Your task to perform on an android device: open wifi settings Image 0: 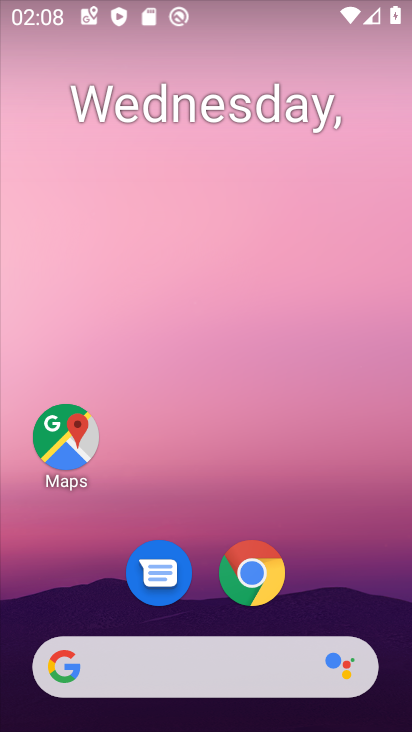
Step 0: drag from (339, 528) to (334, 135)
Your task to perform on an android device: open wifi settings Image 1: 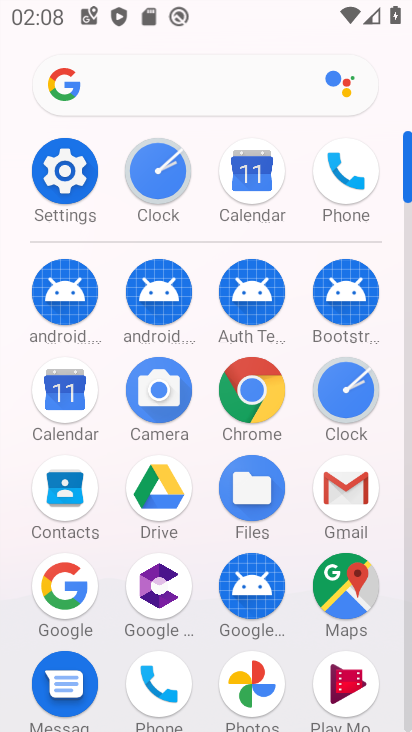
Step 1: click (54, 184)
Your task to perform on an android device: open wifi settings Image 2: 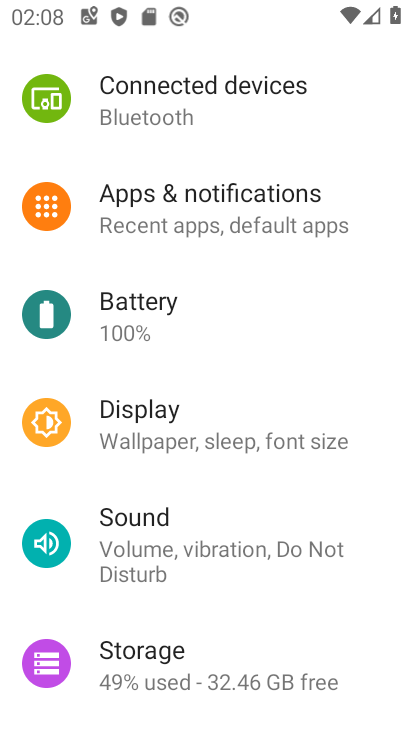
Step 2: drag from (162, 166) to (181, 432)
Your task to perform on an android device: open wifi settings Image 3: 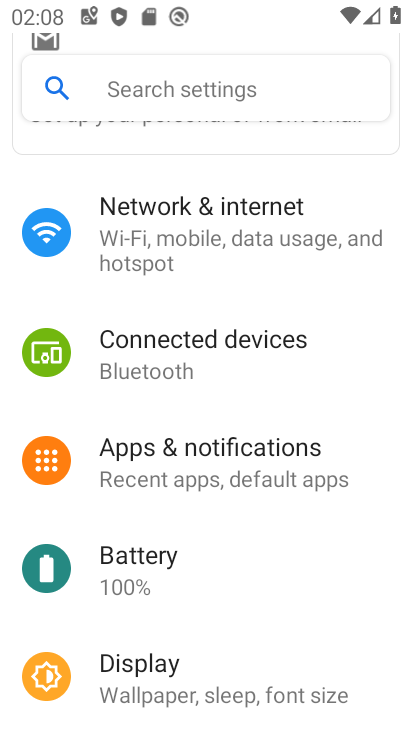
Step 3: click (185, 230)
Your task to perform on an android device: open wifi settings Image 4: 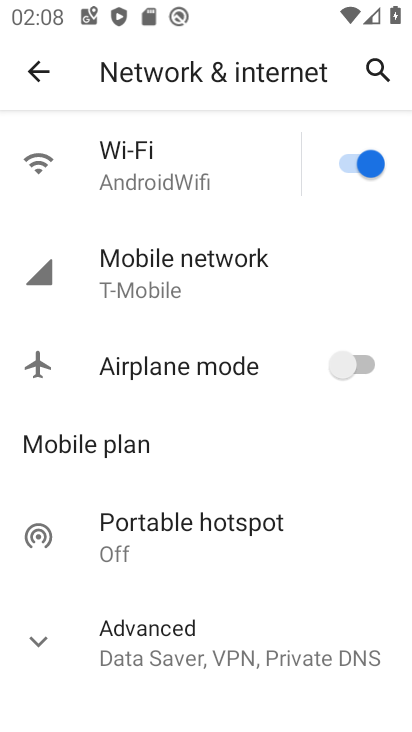
Step 4: click (134, 166)
Your task to perform on an android device: open wifi settings Image 5: 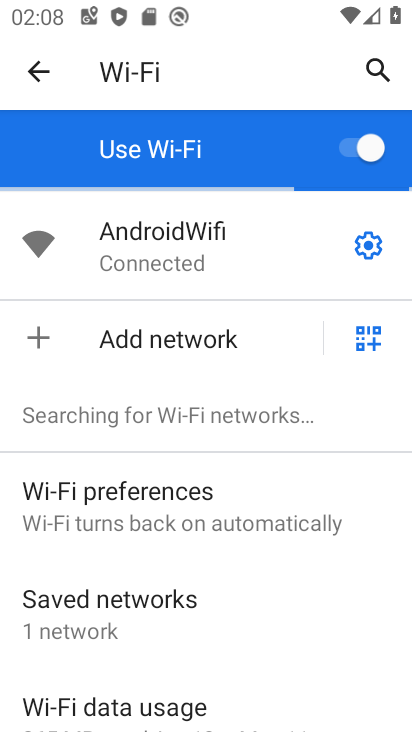
Step 5: task complete